Your task to perform on an android device: turn off wifi Image 0: 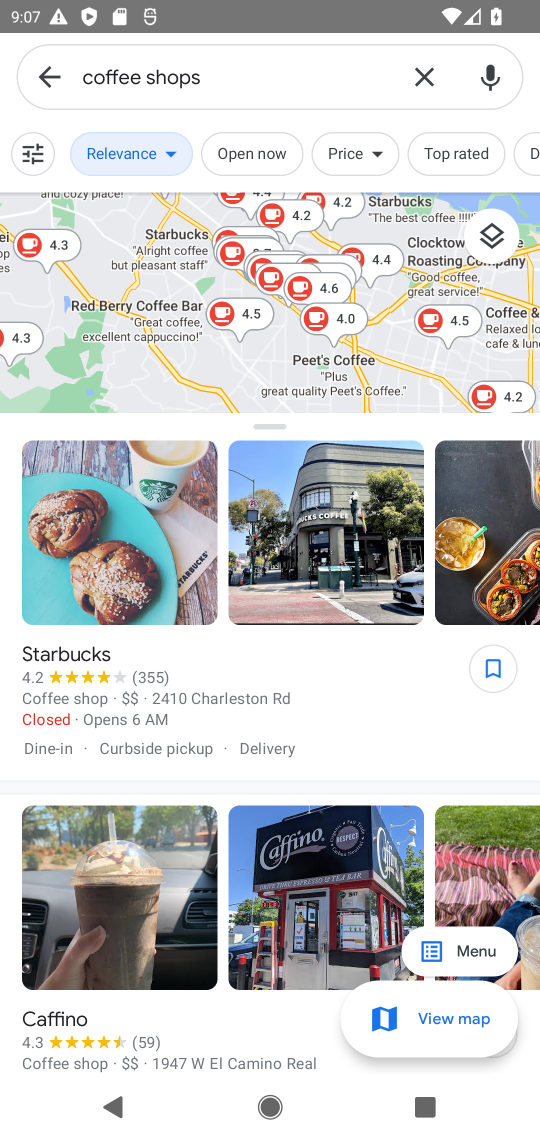
Step 0: drag from (469, 26) to (430, 640)
Your task to perform on an android device: turn off wifi Image 1: 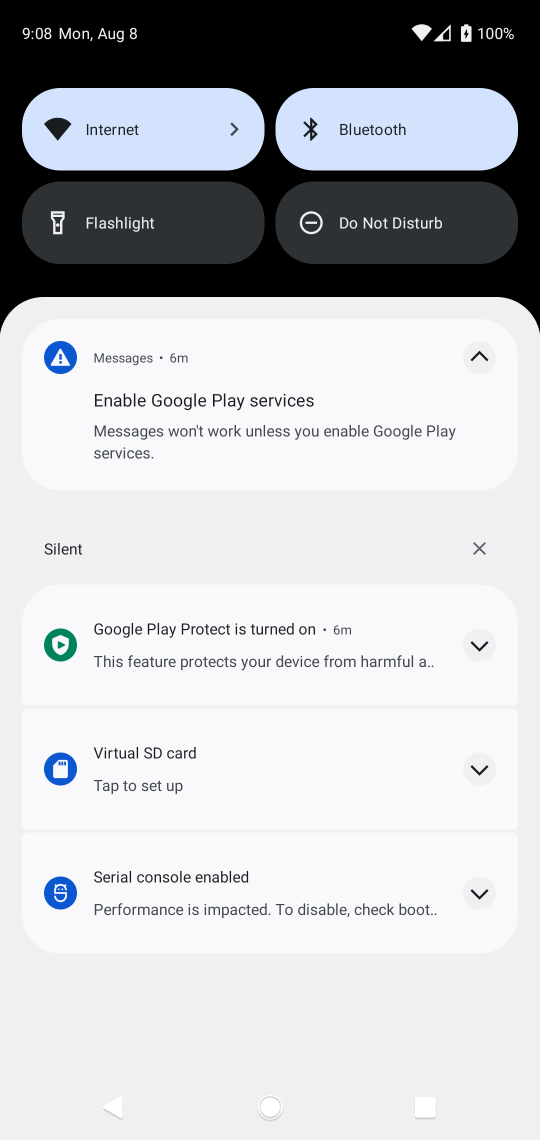
Step 1: click (186, 131)
Your task to perform on an android device: turn off wifi Image 2: 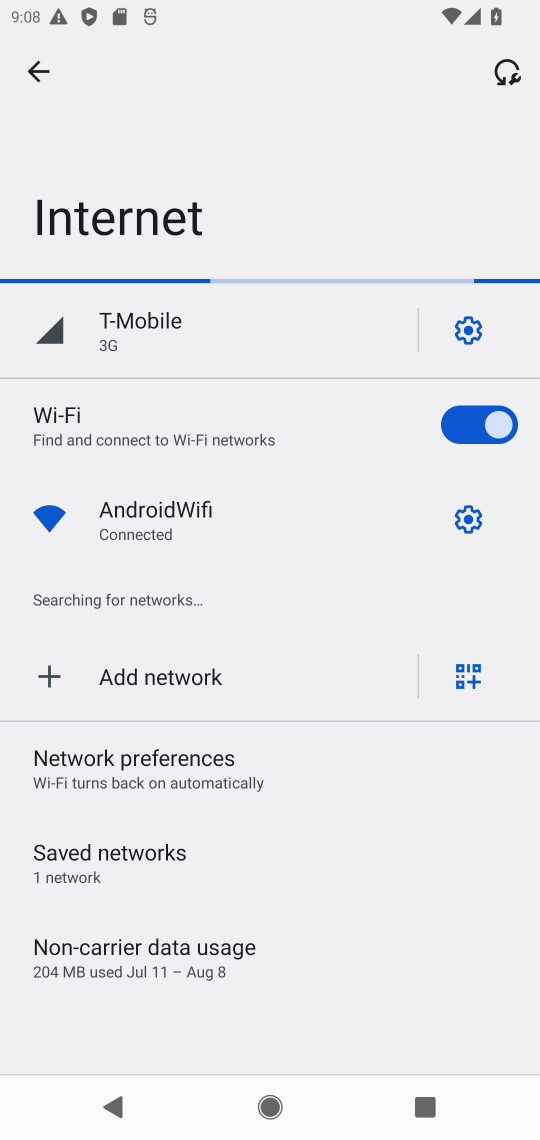
Step 2: click (7, 611)
Your task to perform on an android device: turn off wifi Image 3: 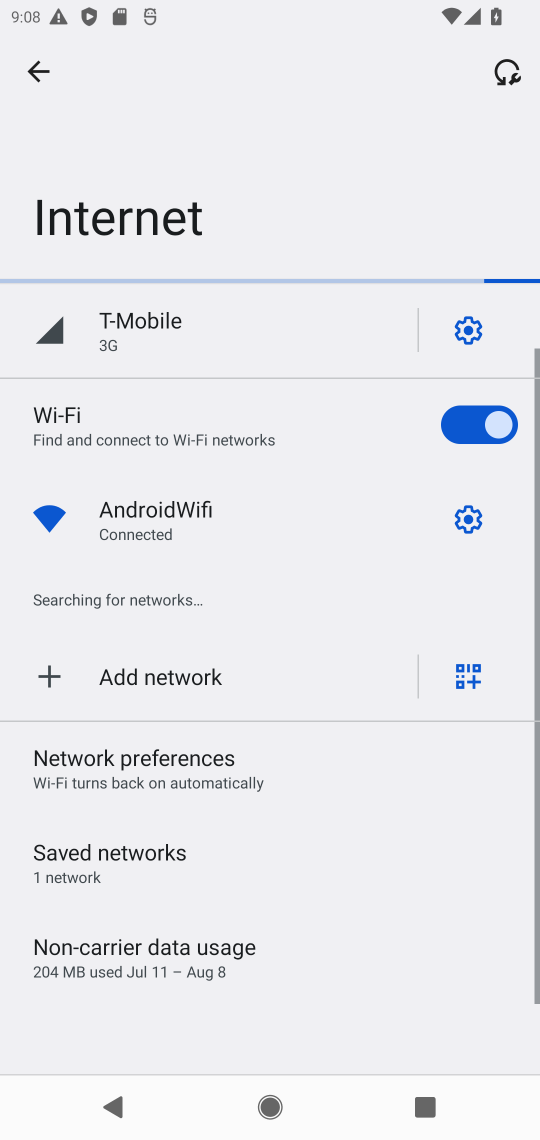
Step 3: task complete